Your task to perform on an android device: Go to Android settings Image 0: 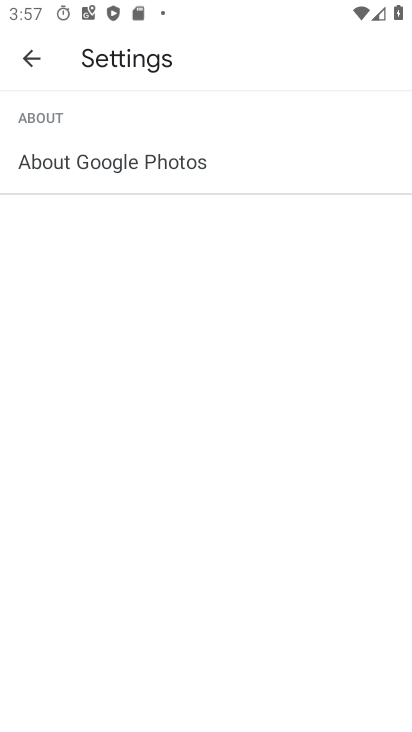
Step 0: click (24, 55)
Your task to perform on an android device: Go to Android settings Image 1: 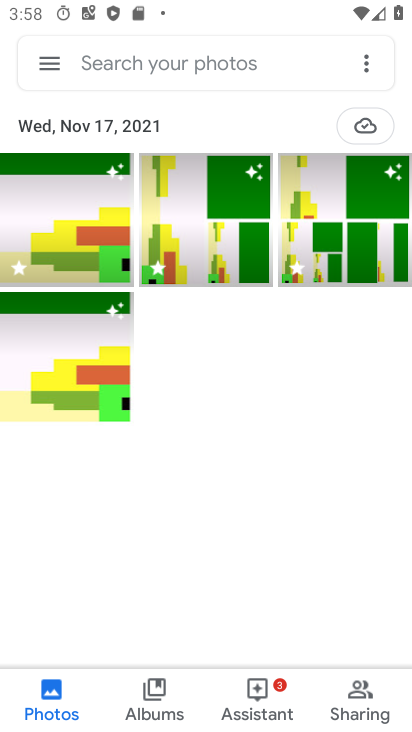
Step 1: press home button
Your task to perform on an android device: Go to Android settings Image 2: 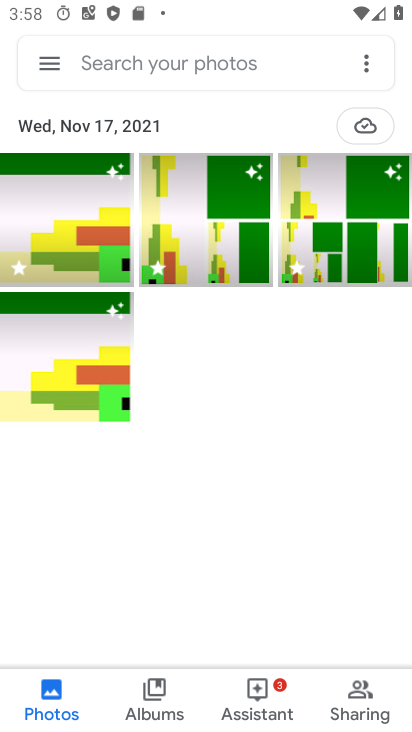
Step 2: press home button
Your task to perform on an android device: Go to Android settings Image 3: 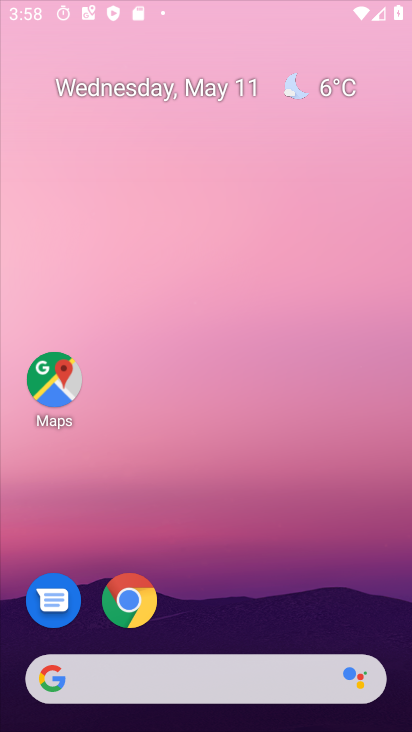
Step 3: press home button
Your task to perform on an android device: Go to Android settings Image 4: 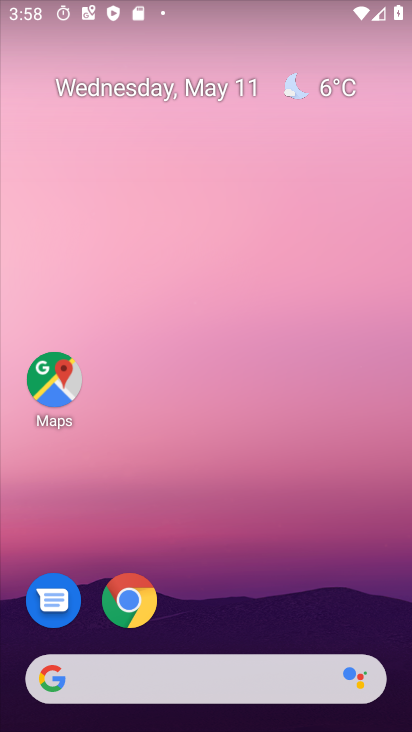
Step 4: drag from (285, 598) to (38, 96)
Your task to perform on an android device: Go to Android settings Image 5: 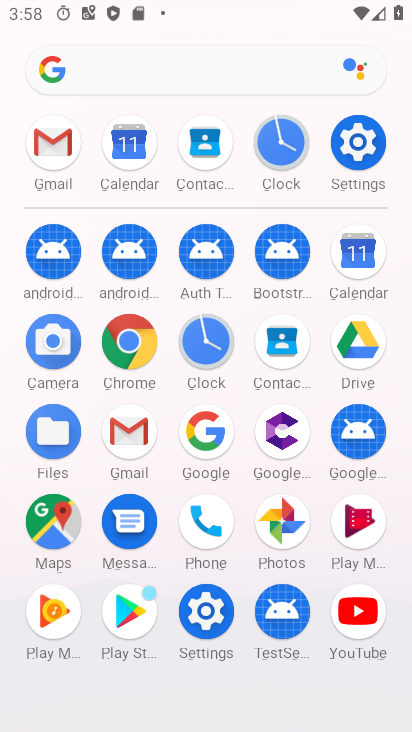
Step 5: click (342, 143)
Your task to perform on an android device: Go to Android settings Image 6: 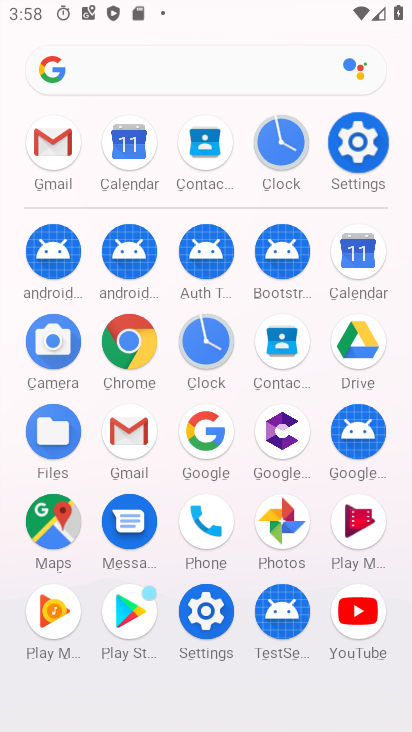
Step 6: click (362, 179)
Your task to perform on an android device: Go to Android settings Image 7: 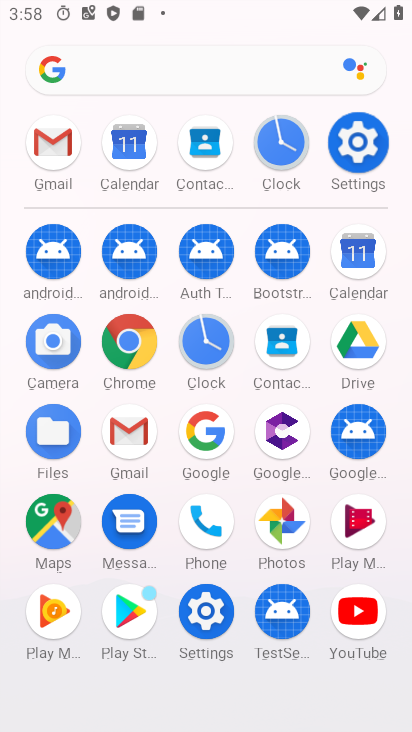
Step 7: click (362, 180)
Your task to perform on an android device: Go to Android settings Image 8: 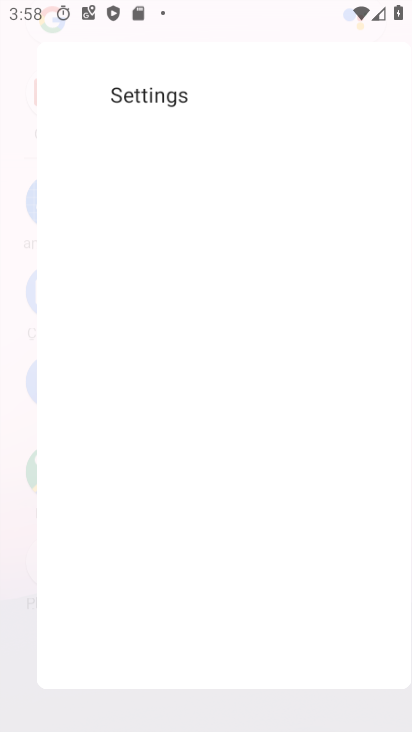
Step 8: click (363, 184)
Your task to perform on an android device: Go to Android settings Image 9: 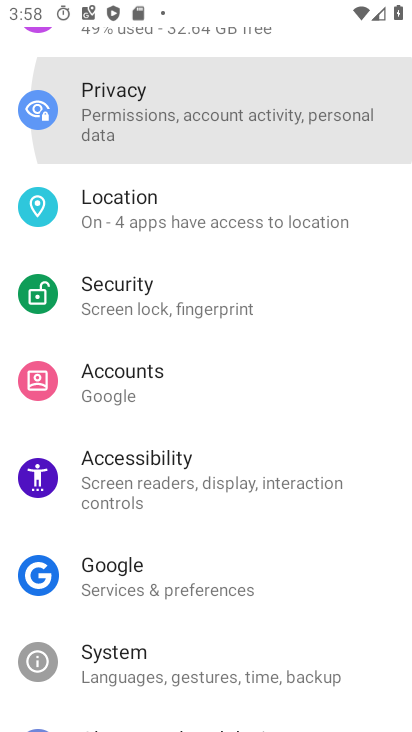
Step 9: click (350, 125)
Your task to perform on an android device: Go to Android settings Image 10: 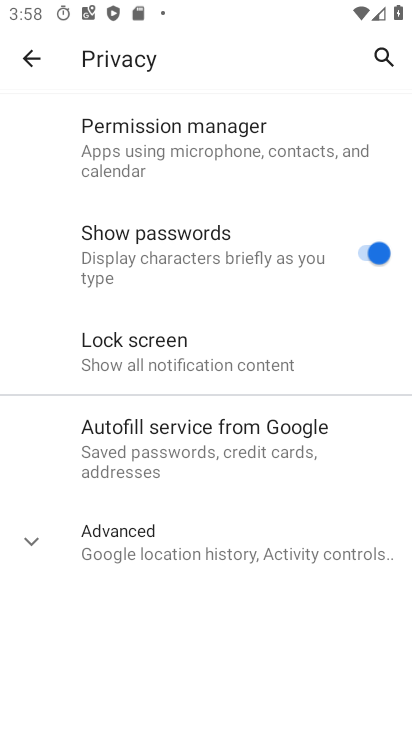
Step 10: press home button
Your task to perform on an android device: Go to Android settings Image 11: 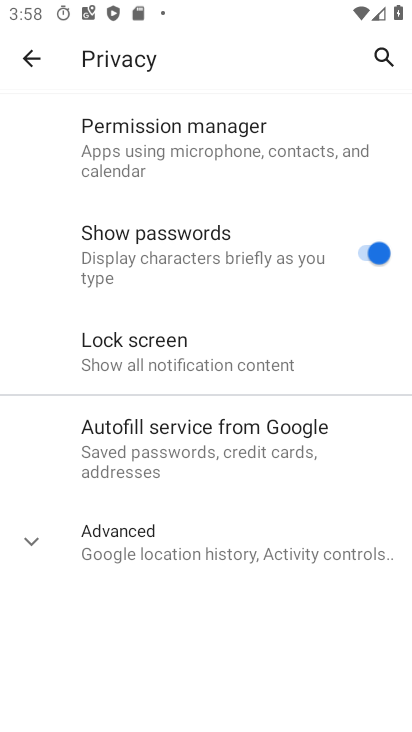
Step 11: press home button
Your task to perform on an android device: Go to Android settings Image 12: 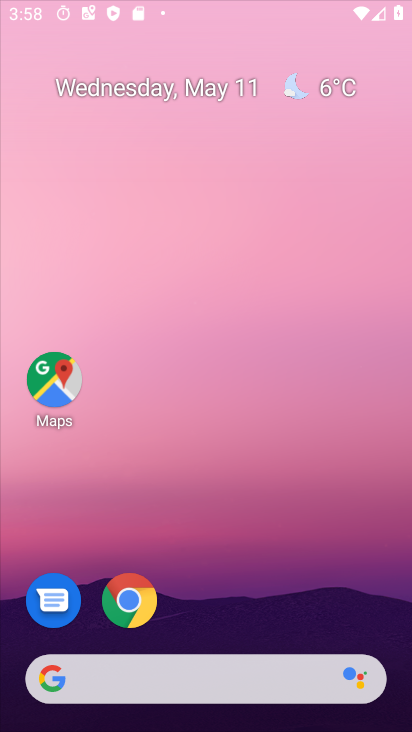
Step 12: press home button
Your task to perform on an android device: Go to Android settings Image 13: 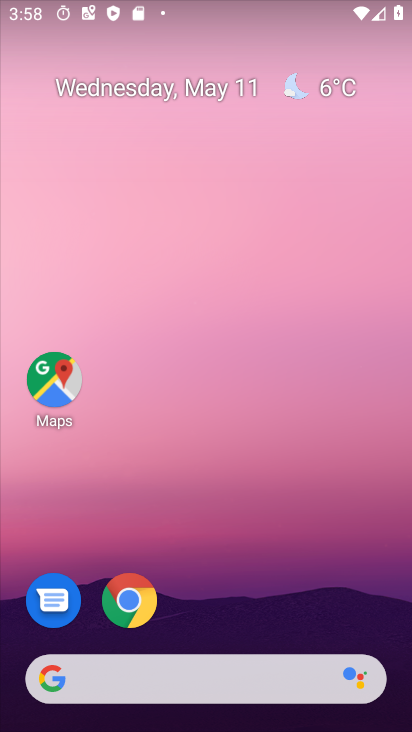
Step 13: drag from (269, 606) to (136, 76)
Your task to perform on an android device: Go to Android settings Image 14: 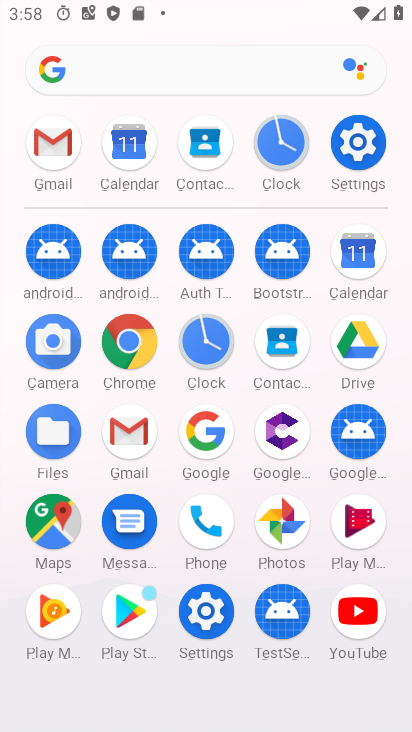
Step 14: click (356, 145)
Your task to perform on an android device: Go to Android settings Image 15: 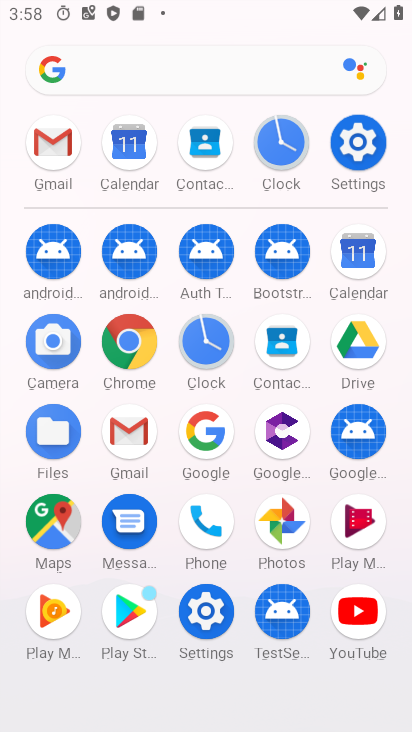
Step 15: click (356, 145)
Your task to perform on an android device: Go to Android settings Image 16: 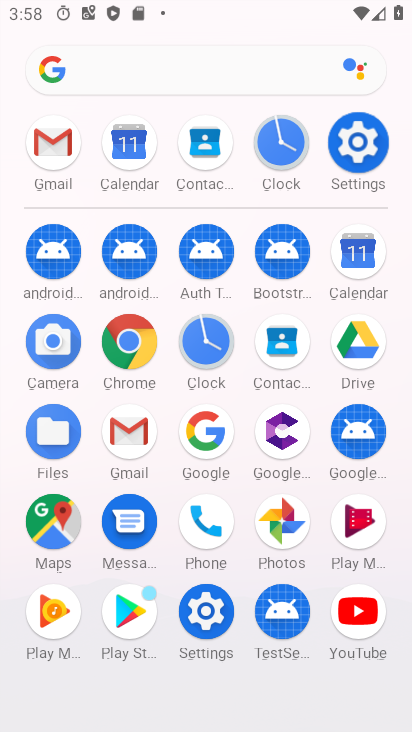
Step 16: click (353, 143)
Your task to perform on an android device: Go to Android settings Image 17: 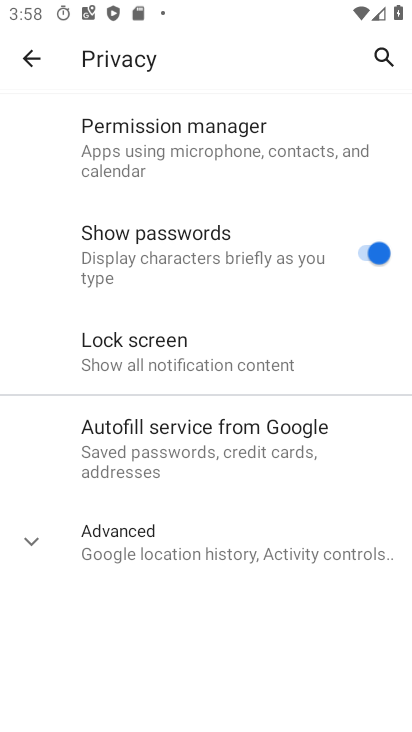
Step 17: click (19, 51)
Your task to perform on an android device: Go to Android settings Image 18: 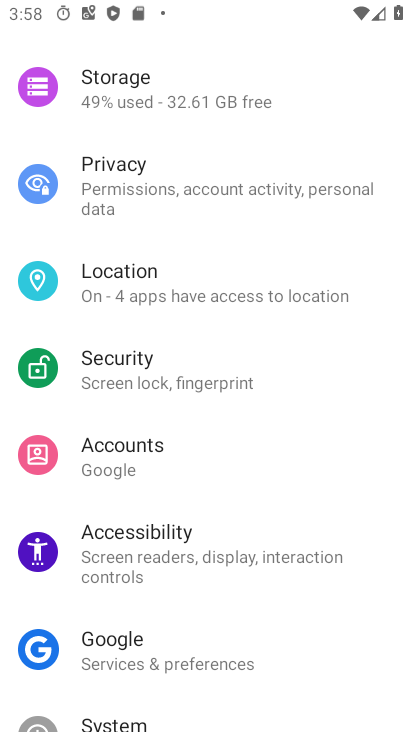
Step 18: drag from (158, 646) to (154, 130)
Your task to perform on an android device: Go to Android settings Image 19: 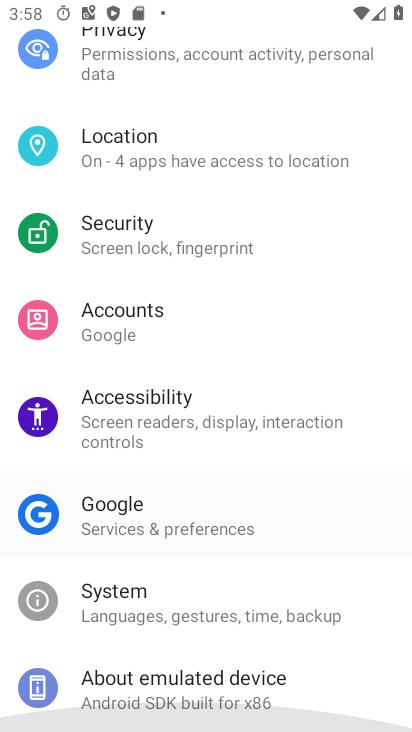
Step 19: drag from (356, 599) to (282, 208)
Your task to perform on an android device: Go to Android settings Image 20: 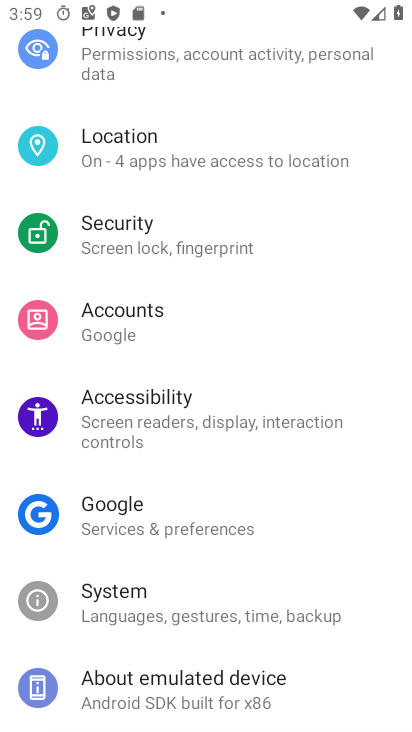
Step 20: click (201, 676)
Your task to perform on an android device: Go to Android settings Image 21: 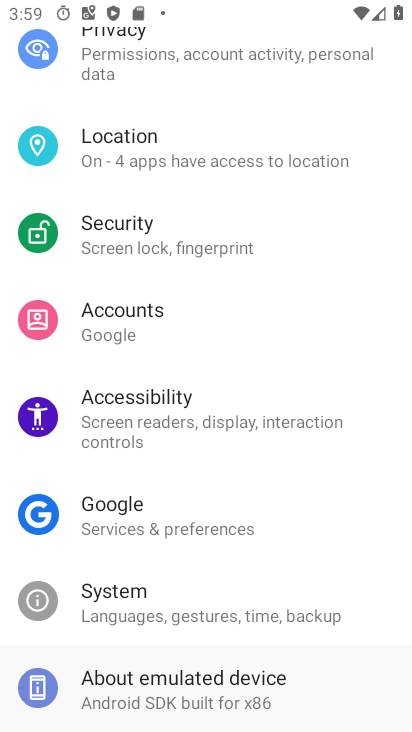
Step 21: click (180, 679)
Your task to perform on an android device: Go to Android settings Image 22: 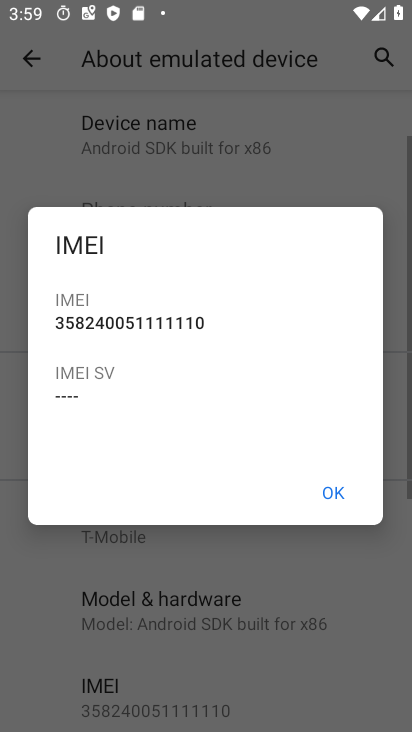
Step 22: click (332, 498)
Your task to perform on an android device: Go to Android settings Image 23: 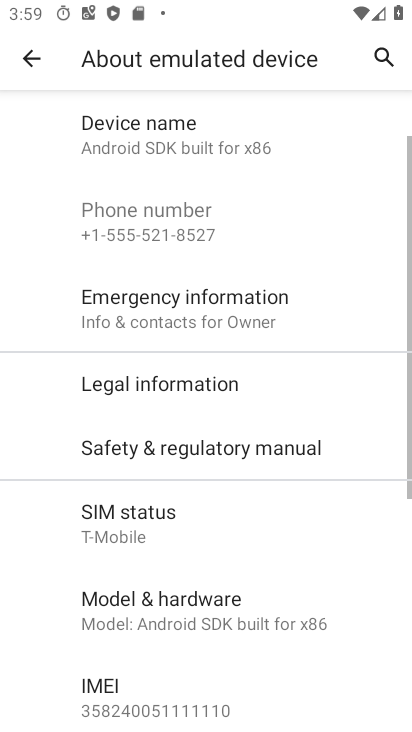
Step 23: task complete